Your task to perform on an android device: toggle airplane mode Image 0: 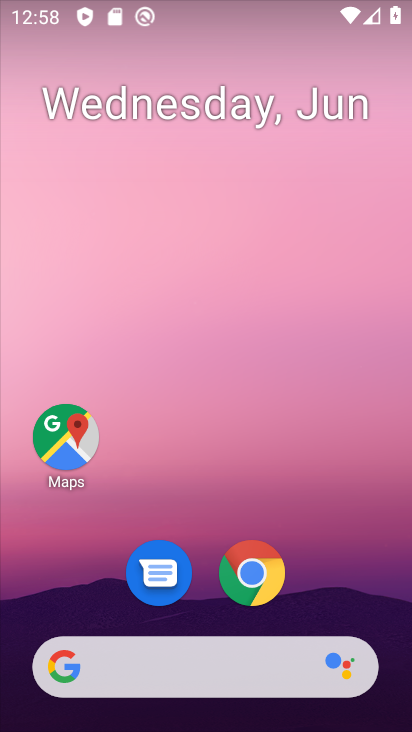
Step 0: drag from (345, 566) to (364, 147)
Your task to perform on an android device: toggle airplane mode Image 1: 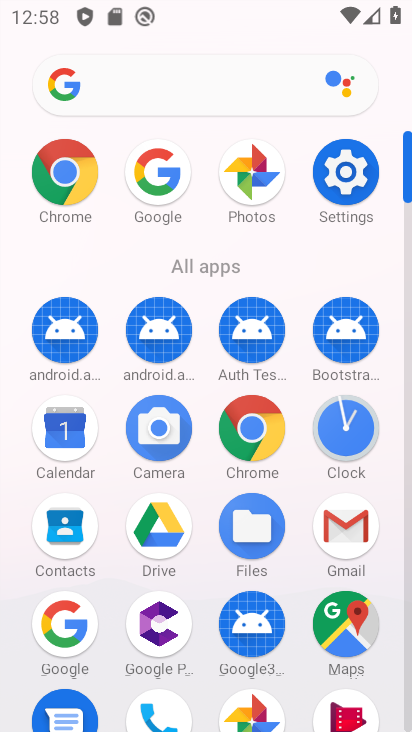
Step 1: click (358, 198)
Your task to perform on an android device: toggle airplane mode Image 2: 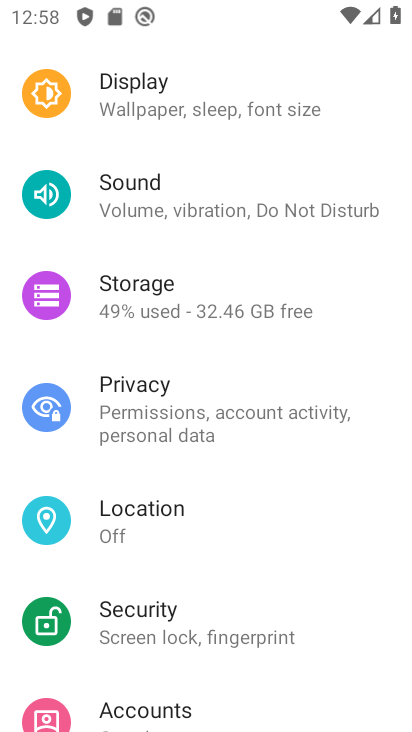
Step 2: drag from (246, 589) to (247, 436)
Your task to perform on an android device: toggle airplane mode Image 3: 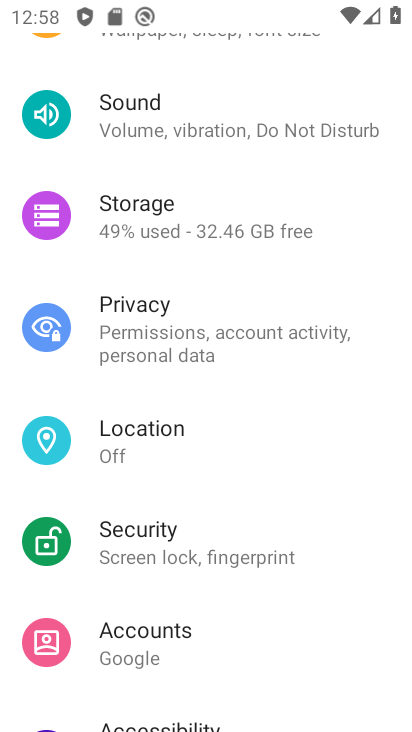
Step 3: drag from (332, 74) to (293, 547)
Your task to perform on an android device: toggle airplane mode Image 4: 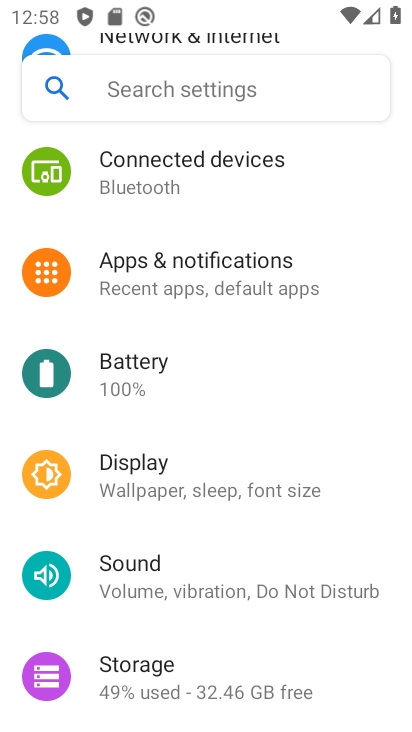
Step 4: drag from (244, 311) to (196, 680)
Your task to perform on an android device: toggle airplane mode Image 5: 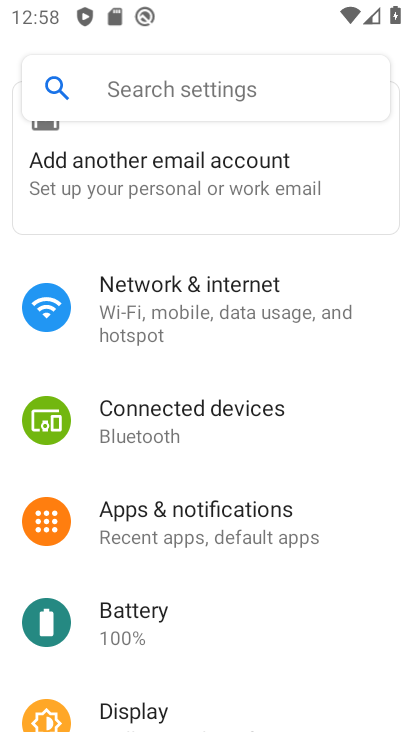
Step 5: click (203, 310)
Your task to perform on an android device: toggle airplane mode Image 6: 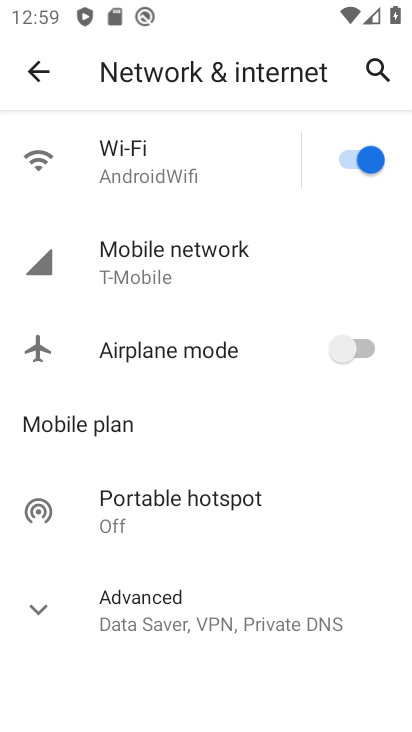
Step 6: click (333, 356)
Your task to perform on an android device: toggle airplane mode Image 7: 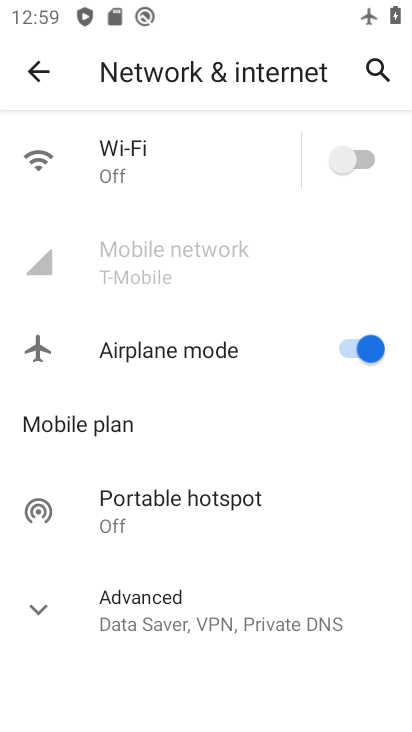
Step 7: task complete